Your task to perform on an android device: Show me the alarms in the clock app Image 0: 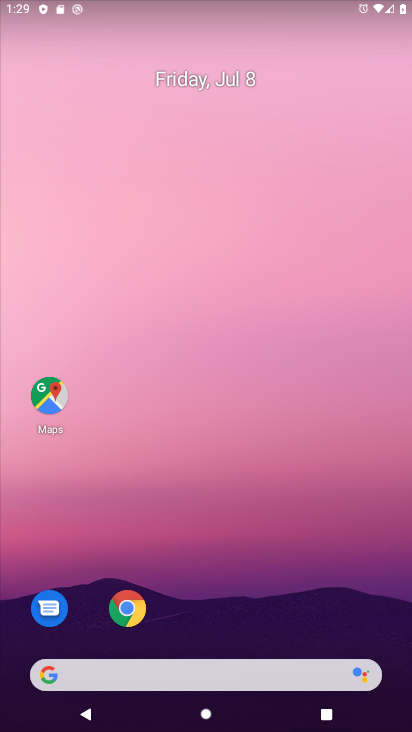
Step 0: drag from (209, 521) to (248, 72)
Your task to perform on an android device: Show me the alarms in the clock app Image 1: 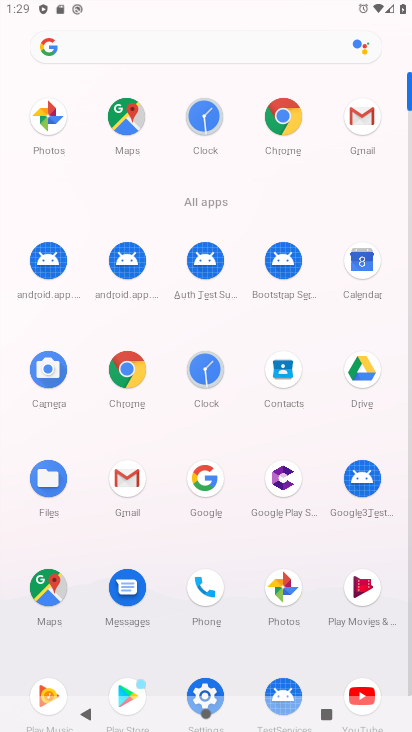
Step 1: click (206, 361)
Your task to perform on an android device: Show me the alarms in the clock app Image 2: 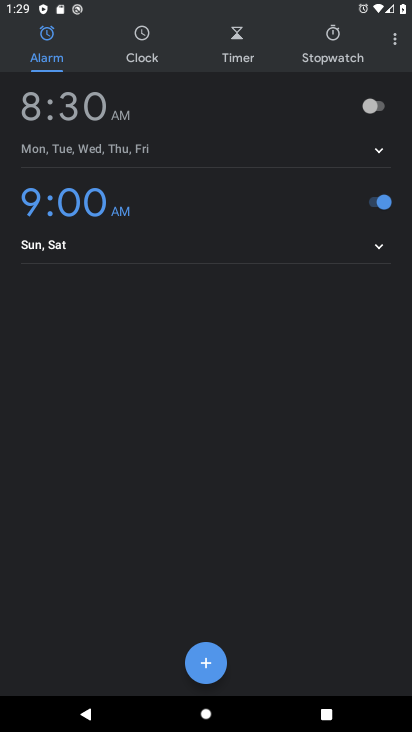
Step 2: task complete